Your task to perform on an android device: Go to eBay Image 0: 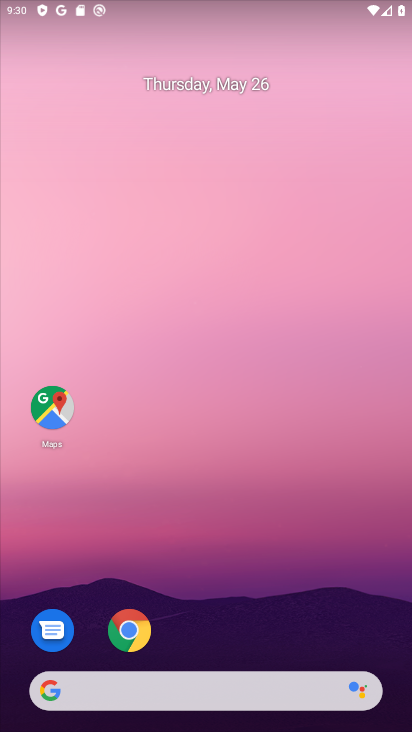
Step 0: click (143, 637)
Your task to perform on an android device: Go to eBay Image 1: 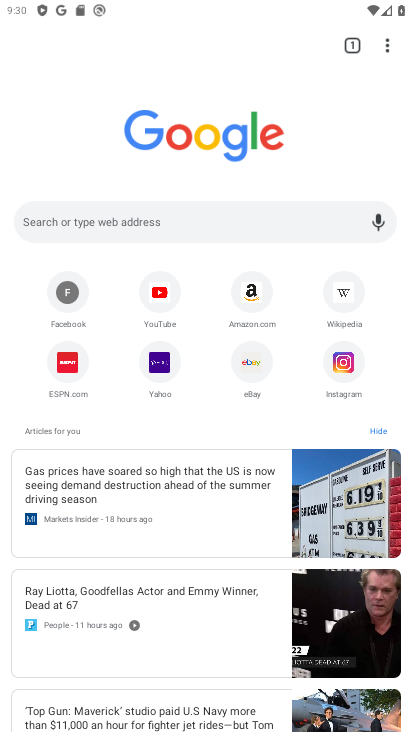
Step 1: click (236, 372)
Your task to perform on an android device: Go to eBay Image 2: 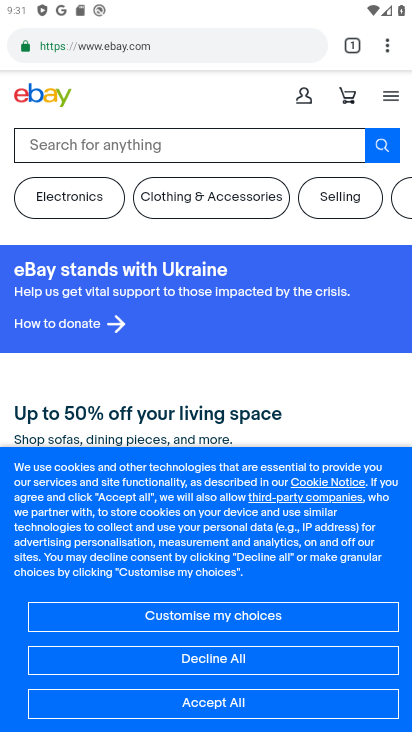
Step 2: task complete